Your task to perform on an android device: turn smart compose on in the gmail app Image 0: 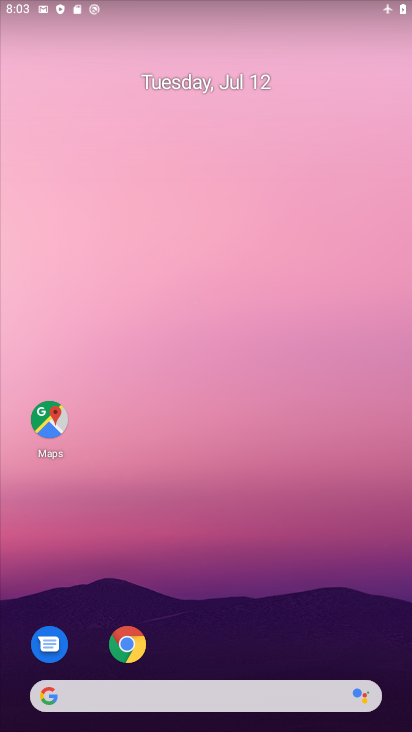
Step 0: drag from (212, 649) to (169, 226)
Your task to perform on an android device: turn smart compose on in the gmail app Image 1: 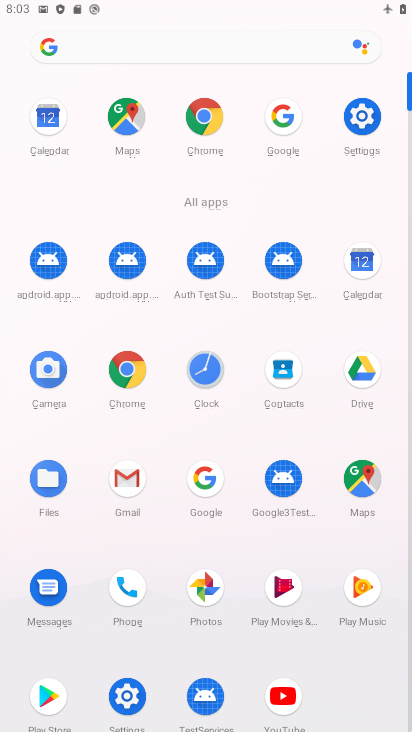
Step 1: click (124, 493)
Your task to perform on an android device: turn smart compose on in the gmail app Image 2: 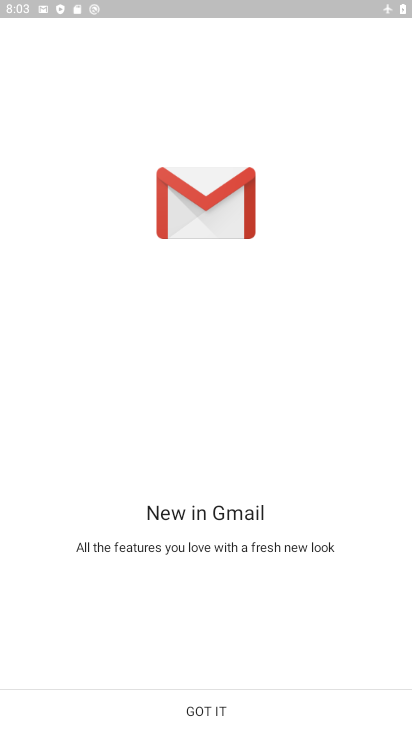
Step 2: click (292, 709)
Your task to perform on an android device: turn smart compose on in the gmail app Image 3: 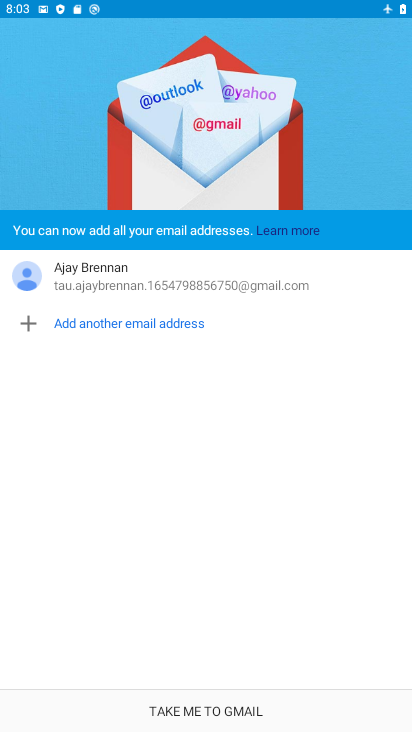
Step 3: click (219, 702)
Your task to perform on an android device: turn smart compose on in the gmail app Image 4: 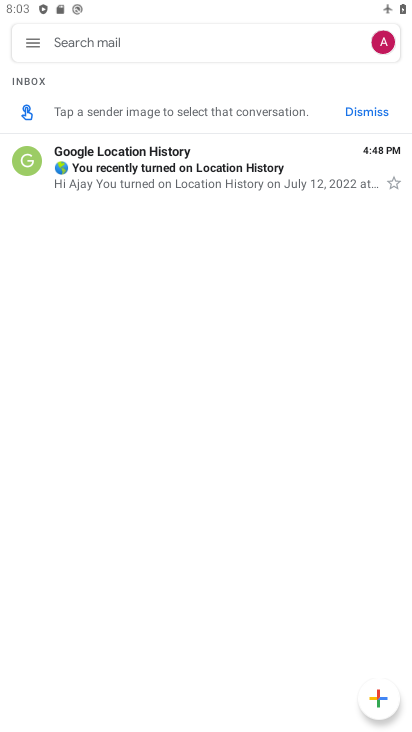
Step 4: click (22, 28)
Your task to perform on an android device: turn smart compose on in the gmail app Image 5: 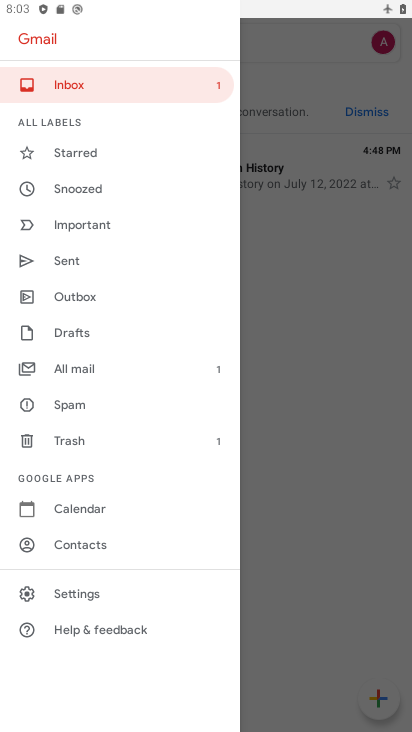
Step 5: click (91, 585)
Your task to perform on an android device: turn smart compose on in the gmail app Image 6: 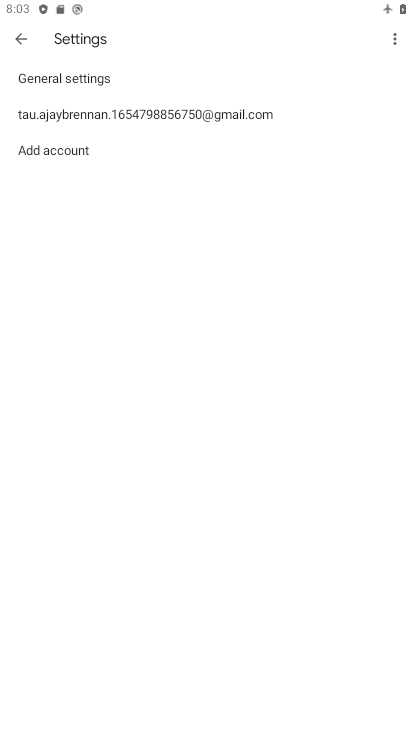
Step 6: click (139, 117)
Your task to perform on an android device: turn smart compose on in the gmail app Image 7: 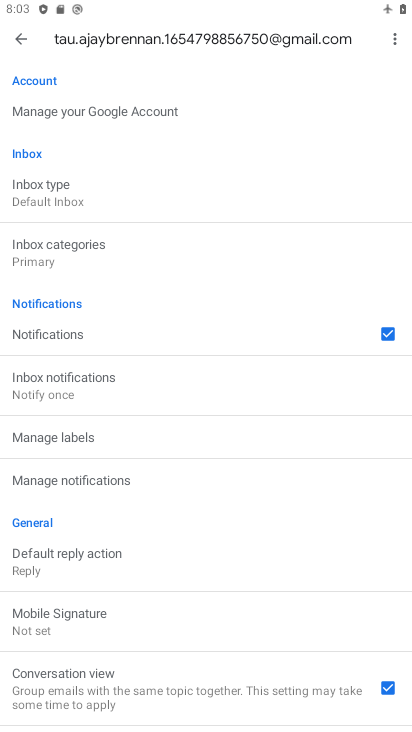
Step 7: task complete